Your task to perform on an android device: Set the phone to "Do not disturb". Image 0: 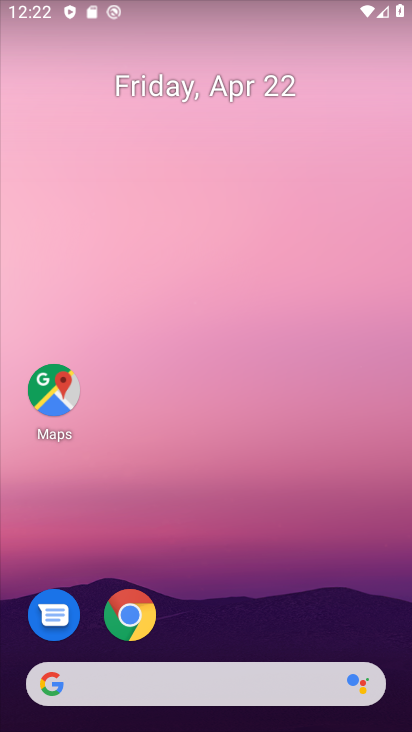
Step 0: drag from (234, 665) to (390, 103)
Your task to perform on an android device: Set the phone to "Do not disturb". Image 1: 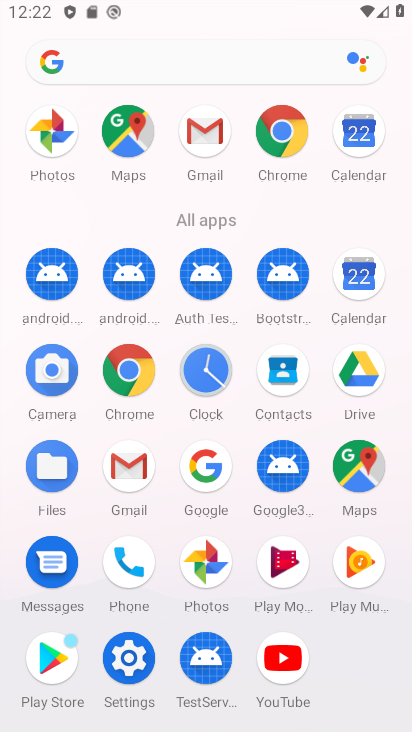
Step 1: click (140, 651)
Your task to perform on an android device: Set the phone to "Do not disturb". Image 2: 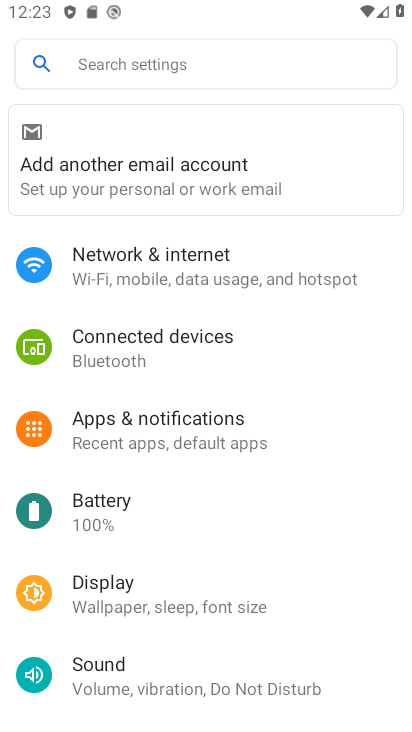
Step 2: click (212, 433)
Your task to perform on an android device: Set the phone to "Do not disturb". Image 3: 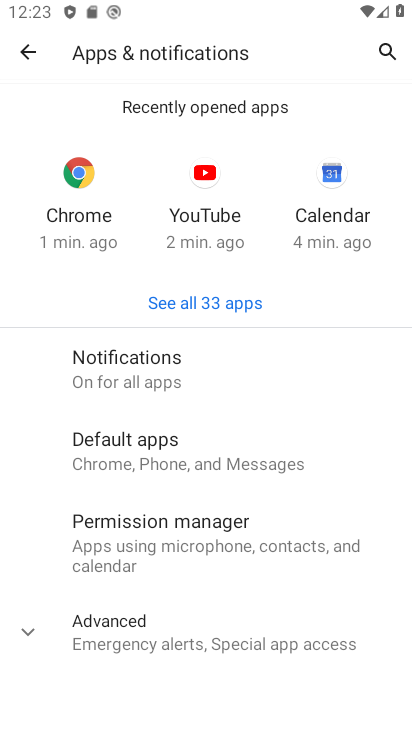
Step 3: click (169, 361)
Your task to perform on an android device: Set the phone to "Do not disturb". Image 4: 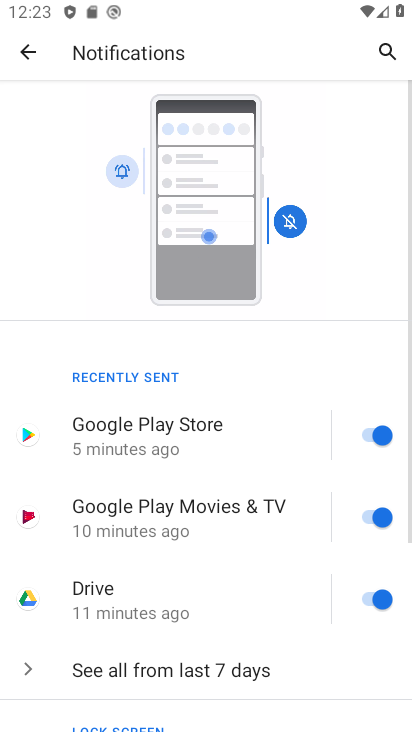
Step 4: drag from (163, 671) to (350, 120)
Your task to perform on an android device: Set the phone to "Do not disturb". Image 5: 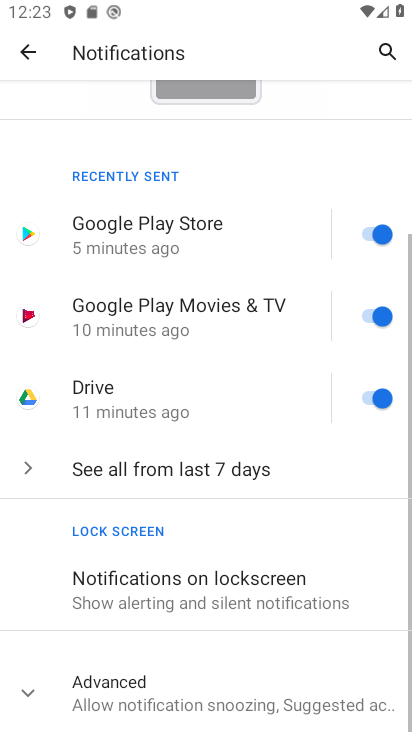
Step 5: click (191, 692)
Your task to perform on an android device: Set the phone to "Do not disturb". Image 6: 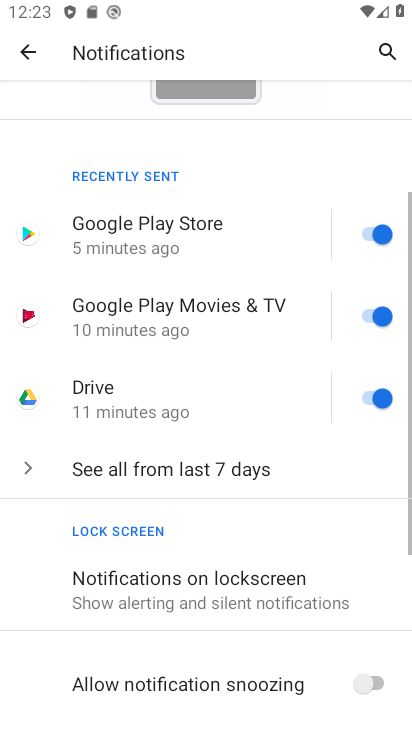
Step 6: drag from (191, 692) to (372, 90)
Your task to perform on an android device: Set the phone to "Do not disturb". Image 7: 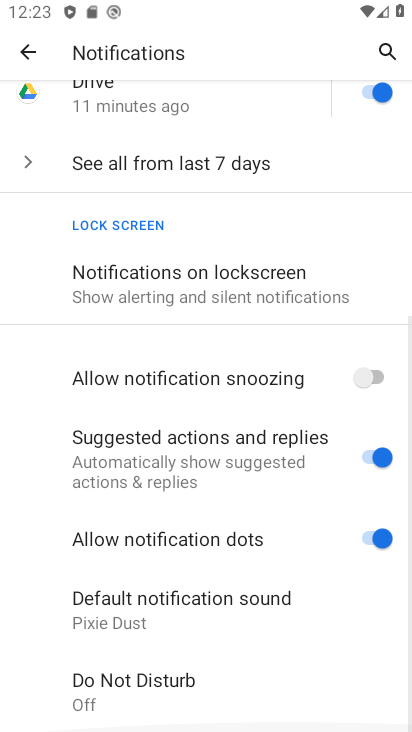
Step 7: click (175, 687)
Your task to perform on an android device: Set the phone to "Do not disturb". Image 8: 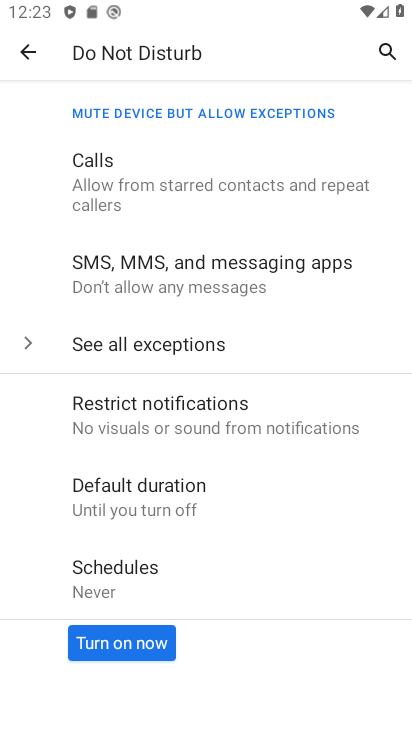
Step 8: click (129, 649)
Your task to perform on an android device: Set the phone to "Do not disturb". Image 9: 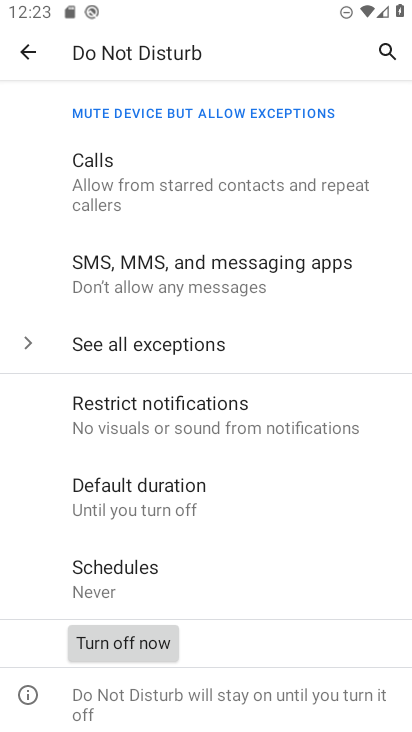
Step 9: task complete